Your task to perform on an android device: Search for seafood restaurants on Google Maps Image 0: 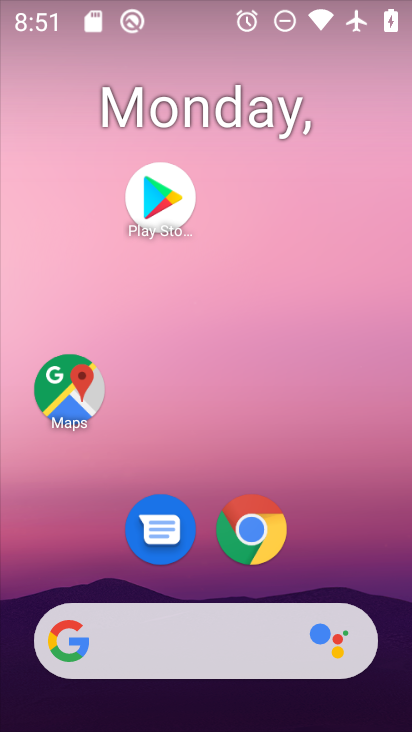
Step 0: click (65, 374)
Your task to perform on an android device: Search for seafood restaurants on Google Maps Image 1: 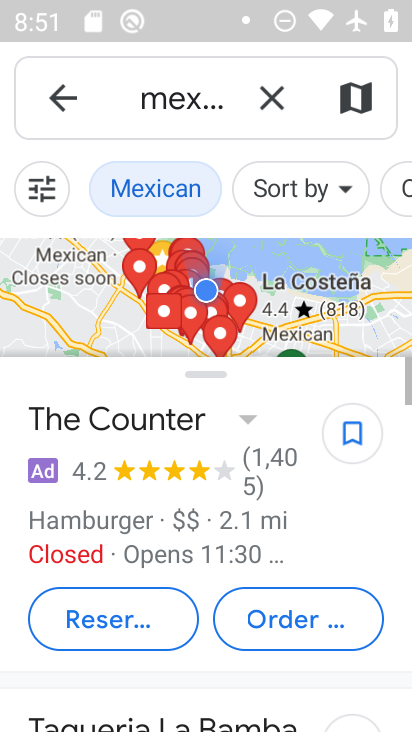
Step 1: click (267, 92)
Your task to perform on an android device: Search for seafood restaurants on Google Maps Image 2: 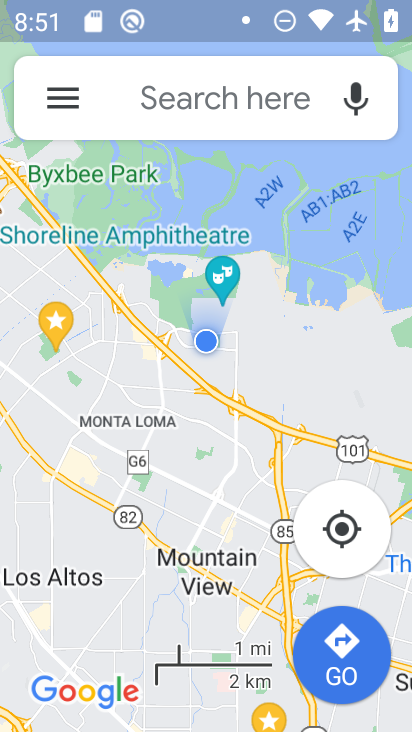
Step 2: click (133, 103)
Your task to perform on an android device: Search for seafood restaurants on Google Maps Image 3: 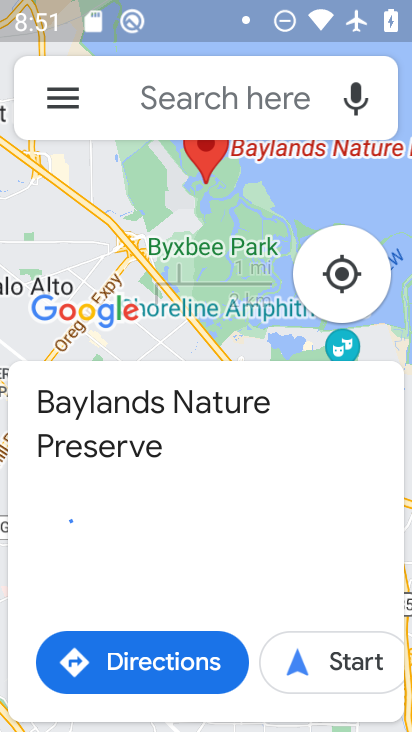
Step 3: click (220, 103)
Your task to perform on an android device: Search for seafood restaurants on Google Maps Image 4: 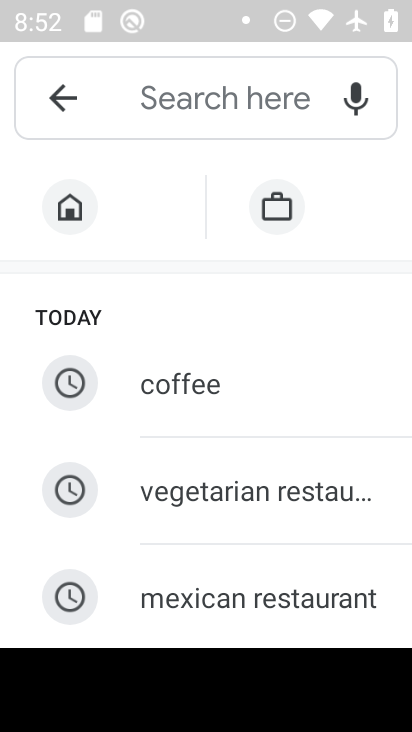
Step 4: type "google maps"
Your task to perform on an android device: Search for seafood restaurants on Google Maps Image 5: 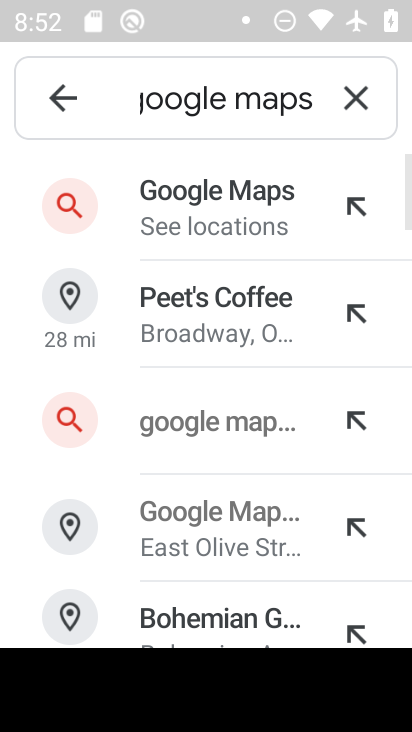
Step 5: click (227, 201)
Your task to perform on an android device: Search for seafood restaurants on Google Maps Image 6: 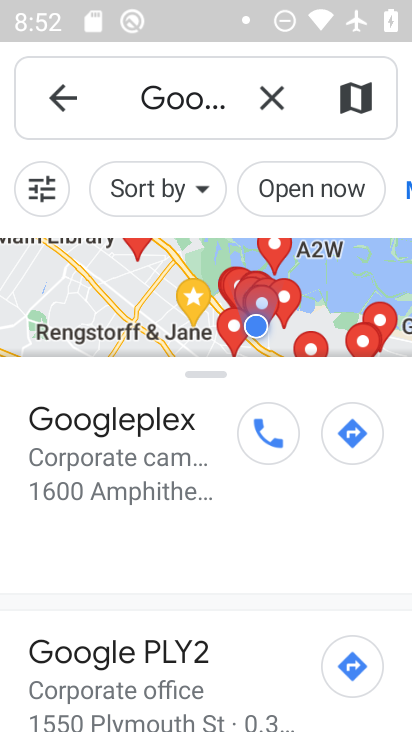
Step 6: task complete